Your task to perform on an android device: Open display settings Image 0: 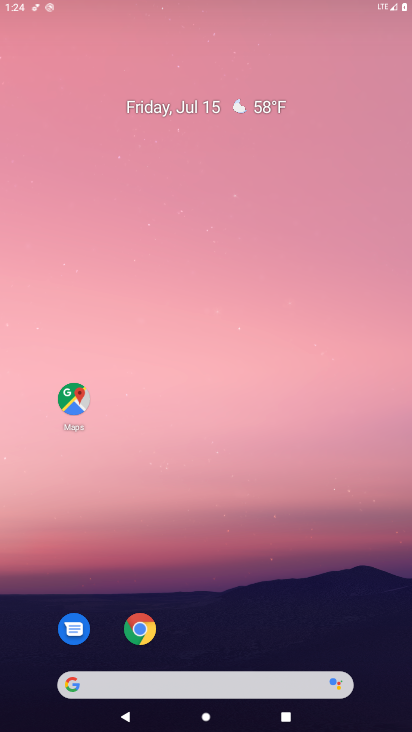
Step 0: press home button
Your task to perform on an android device: Open display settings Image 1: 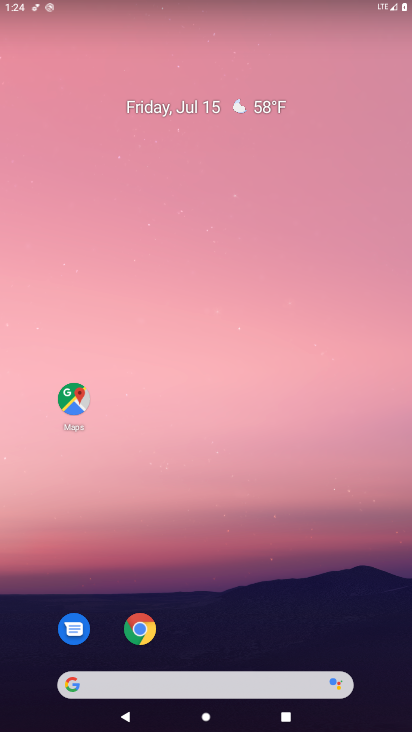
Step 1: drag from (268, 574) to (264, 71)
Your task to perform on an android device: Open display settings Image 2: 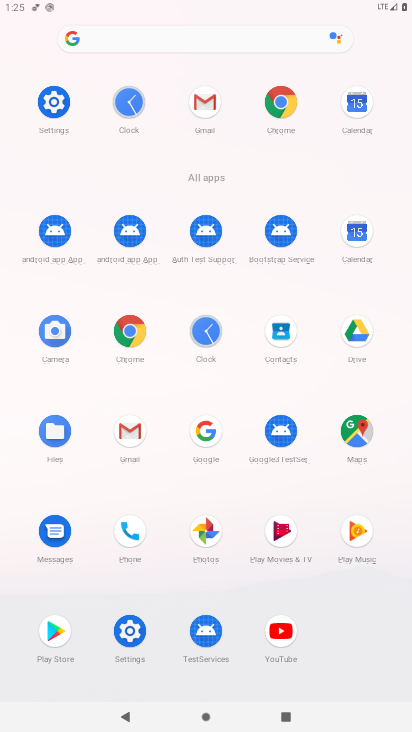
Step 2: click (56, 105)
Your task to perform on an android device: Open display settings Image 3: 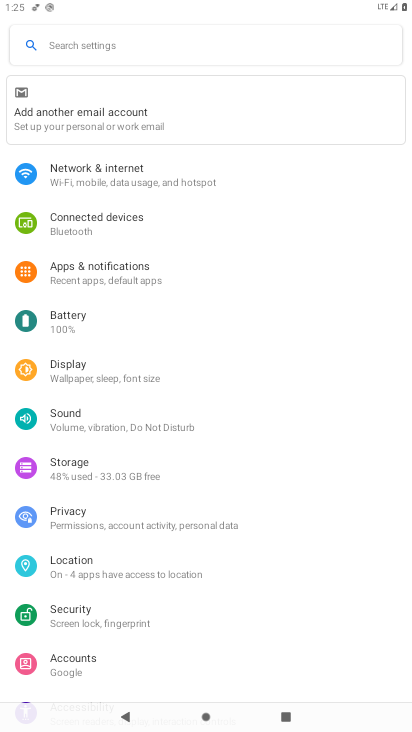
Step 3: click (70, 377)
Your task to perform on an android device: Open display settings Image 4: 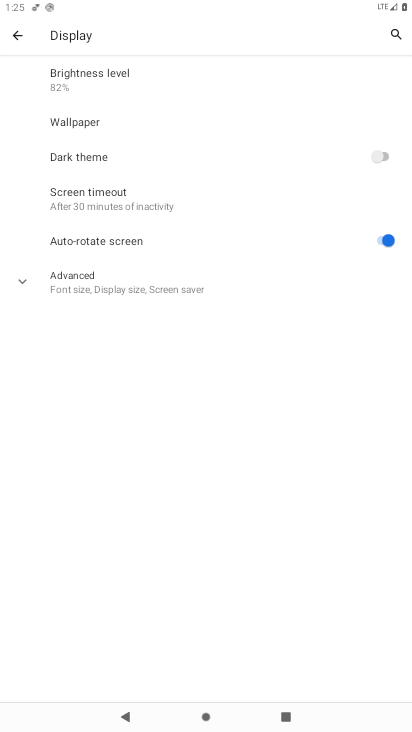
Step 4: task complete